Your task to perform on an android device: Open Android settings Image 0: 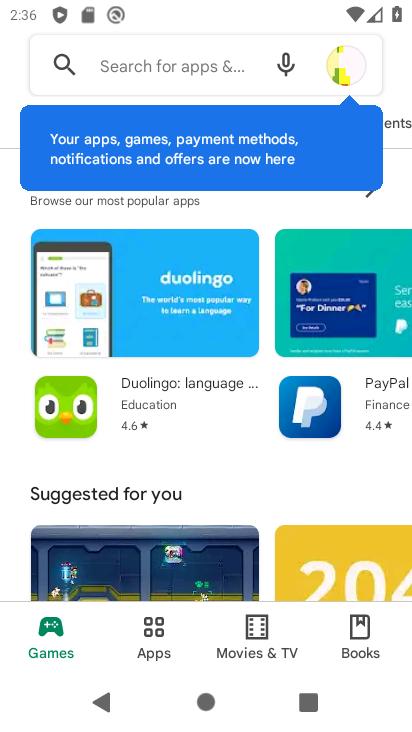
Step 0: press home button
Your task to perform on an android device: Open Android settings Image 1: 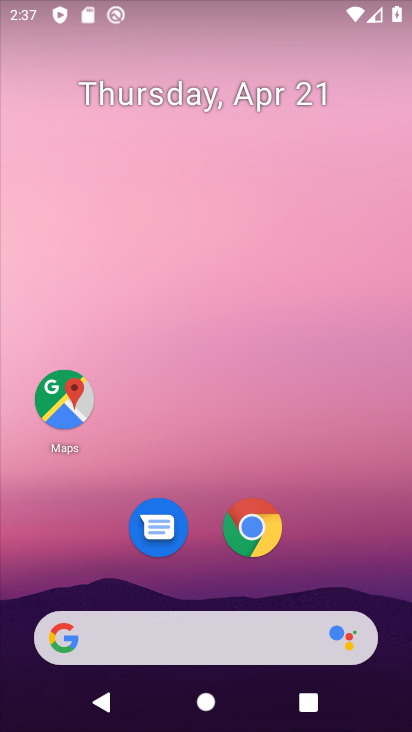
Step 1: drag from (195, 611) to (192, 239)
Your task to perform on an android device: Open Android settings Image 2: 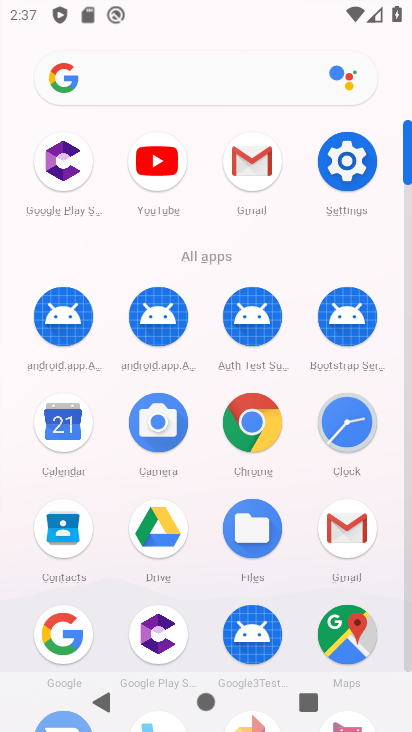
Step 2: click (341, 163)
Your task to perform on an android device: Open Android settings Image 3: 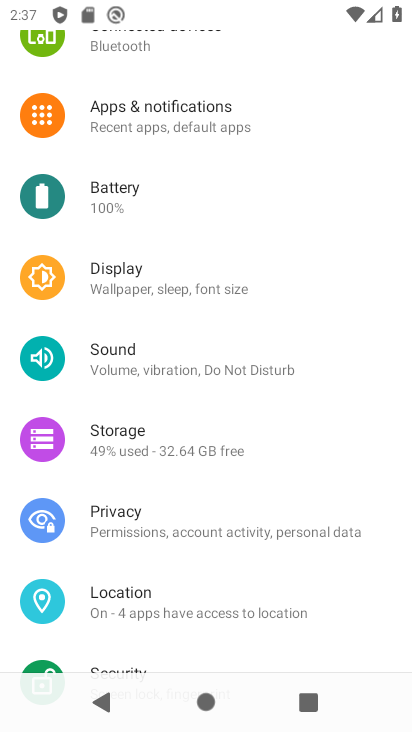
Step 3: drag from (125, 653) to (125, 288)
Your task to perform on an android device: Open Android settings Image 4: 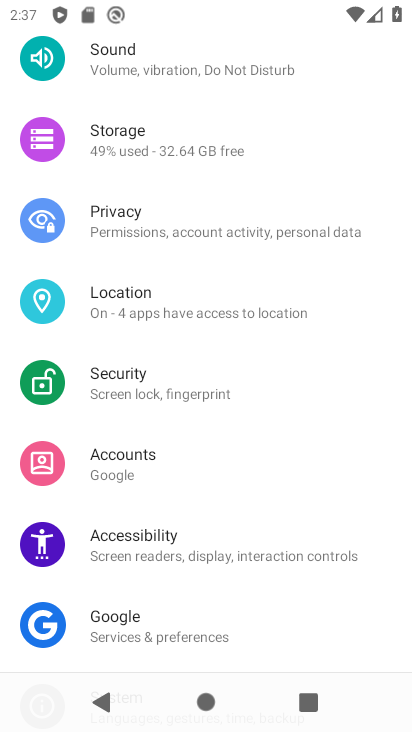
Step 4: drag from (140, 627) to (139, 224)
Your task to perform on an android device: Open Android settings Image 5: 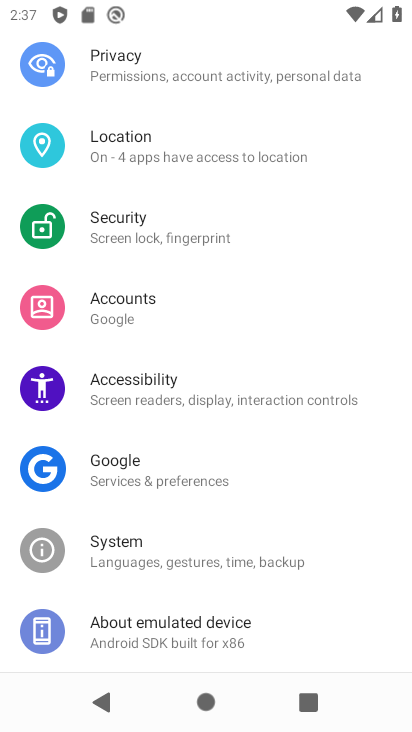
Step 5: click (134, 628)
Your task to perform on an android device: Open Android settings Image 6: 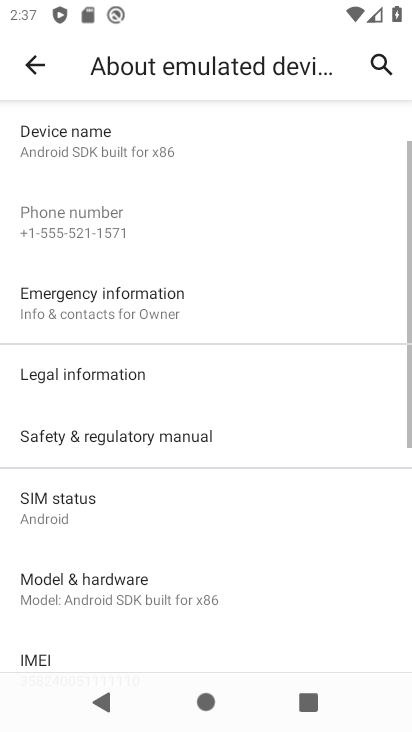
Step 6: click (26, 71)
Your task to perform on an android device: Open Android settings Image 7: 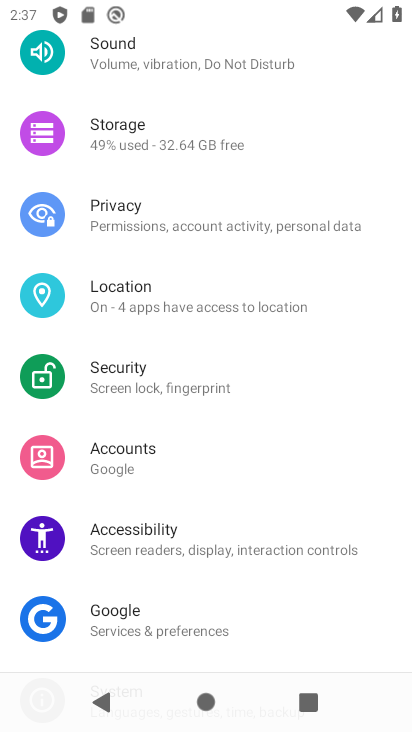
Step 7: task complete